Your task to perform on an android device: Open privacy settings Image 0: 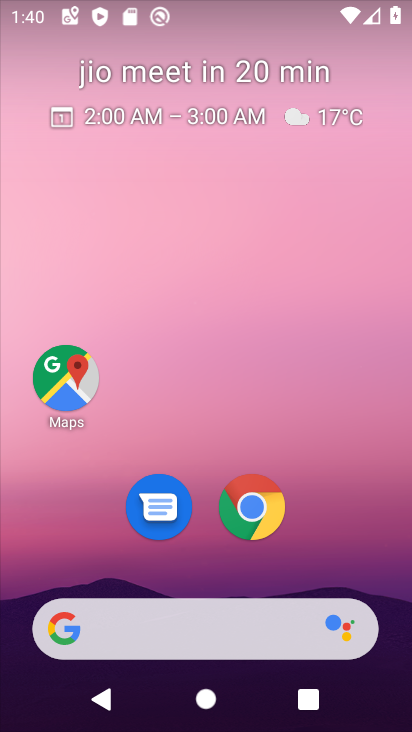
Step 0: drag from (307, 448) to (249, 64)
Your task to perform on an android device: Open privacy settings Image 1: 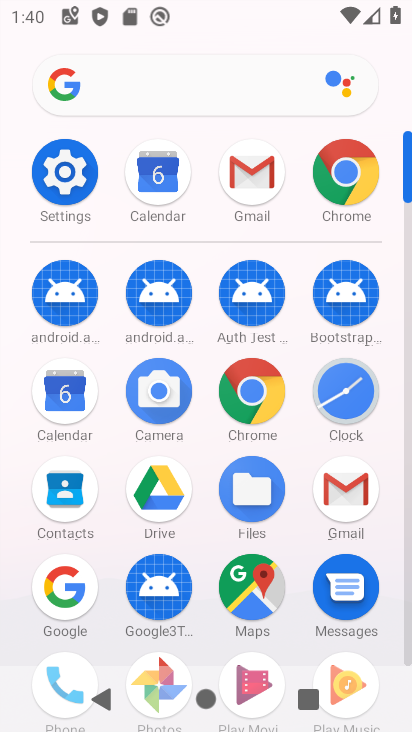
Step 1: drag from (12, 588) to (21, 202)
Your task to perform on an android device: Open privacy settings Image 2: 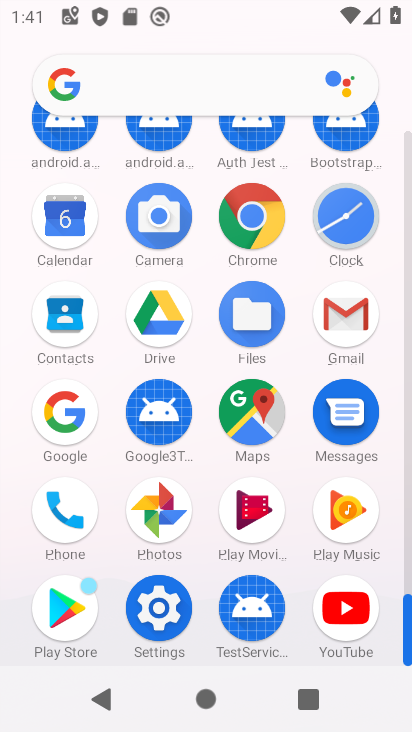
Step 2: click (161, 604)
Your task to perform on an android device: Open privacy settings Image 3: 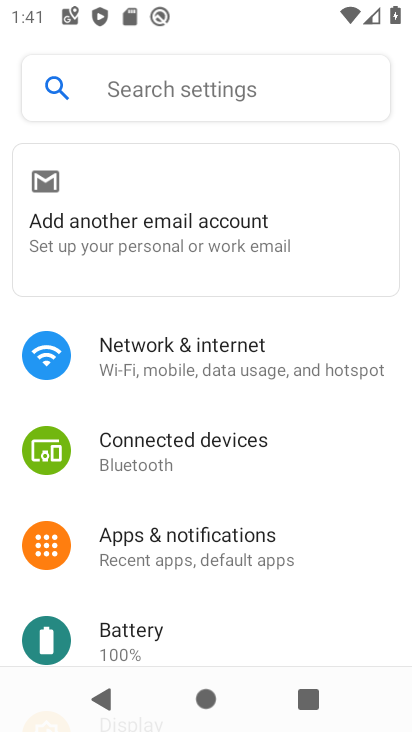
Step 3: drag from (267, 598) to (280, 290)
Your task to perform on an android device: Open privacy settings Image 4: 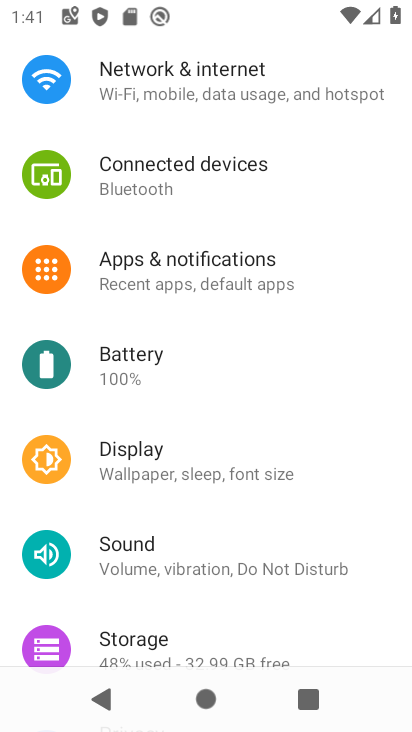
Step 4: drag from (271, 591) to (299, 210)
Your task to perform on an android device: Open privacy settings Image 5: 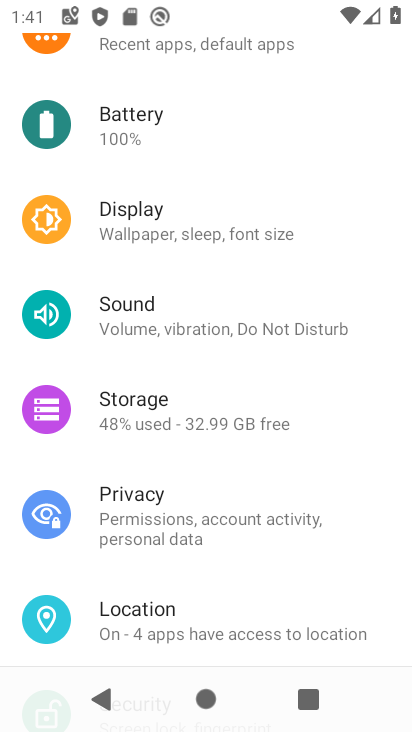
Step 5: drag from (294, 527) to (319, 157)
Your task to perform on an android device: Open privacy settings Image 6: 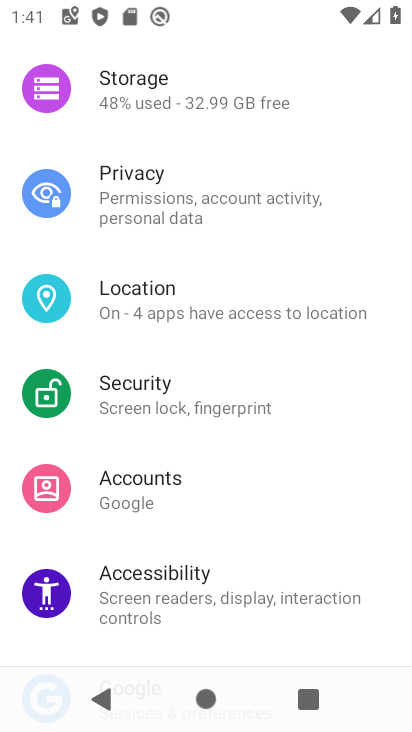
Step 6: drag from (274, 561) to (321, 158)
Your task to perform on an android device: Open privacy settings Image 7: 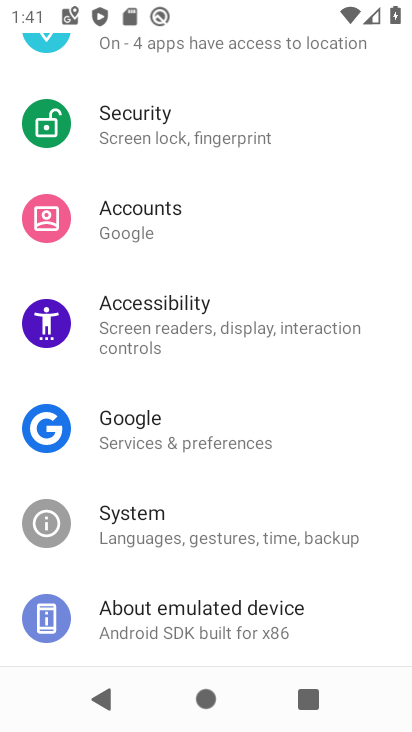
Step 7: drag from (229, 403) to (296, 97)
Your task to perform on an android device: Open privacy settings Image 8: 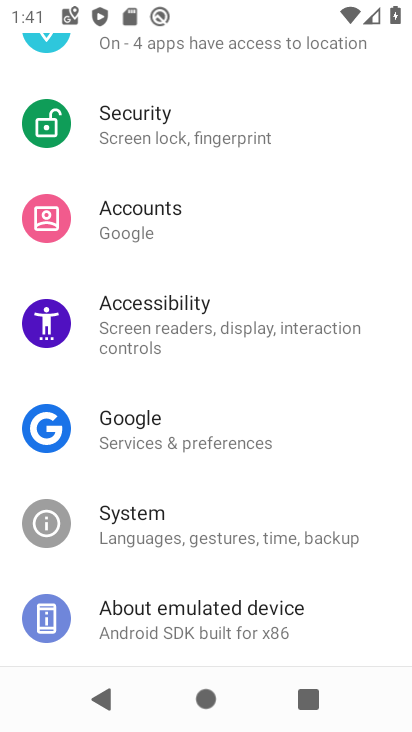
Step 8: drag from (268, 207) to (256, 539)
Your task to perform on an android device: Open privacy settings Image 9: 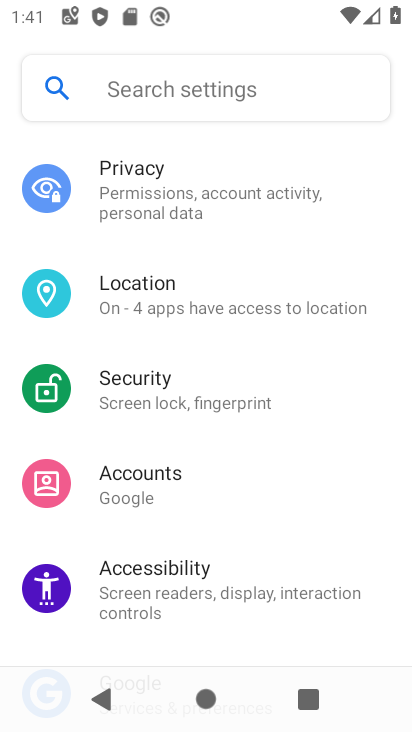
Step 9: drag from (265, 215) to (272, 572)
Your task to perform on an android device: Open privacy settings Image 10: 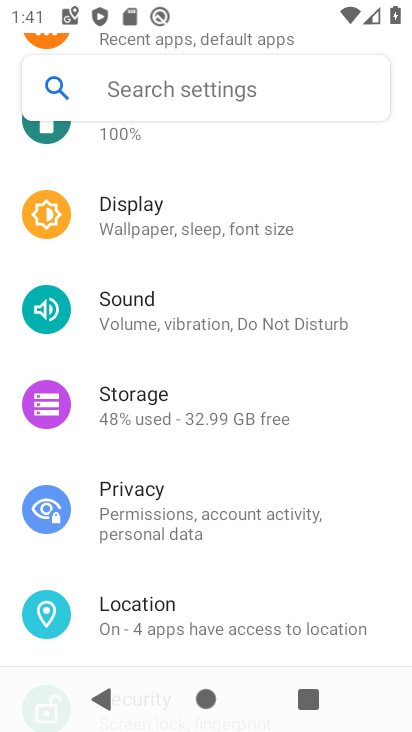
Step 10: drag from (284, 251) to (275, 566)
Your task to perform on an android device: Open privacy settings Image 11: 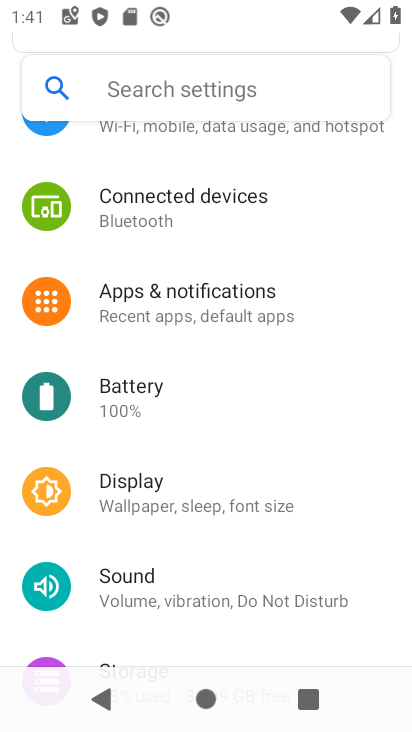
Step 11: drag from (280, 305) to (283, 567)
Your task to perform on an android device: Open privacy settings Image 12: 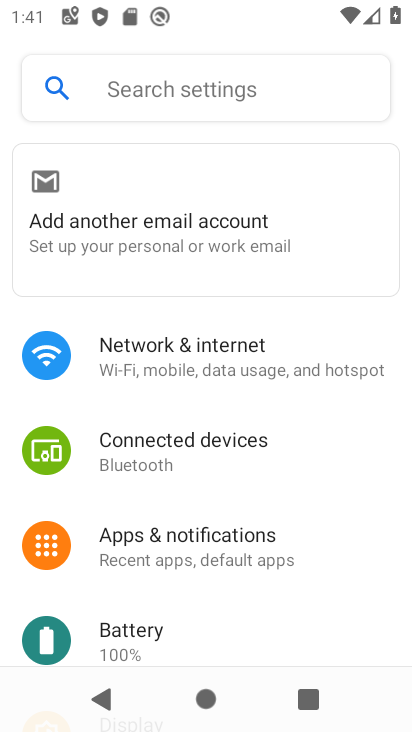
Step 12: drag from (243, 555) to (244, 228)
Your task to perform on an android device: Open privacy settings Image 13: 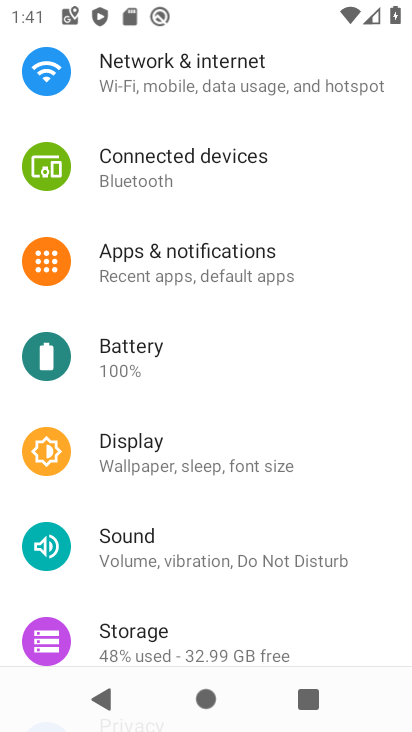
Step 13: drag from (186, 615) to (220, 285)
Your task to perform on an android device: Open privacy settings Image 14: 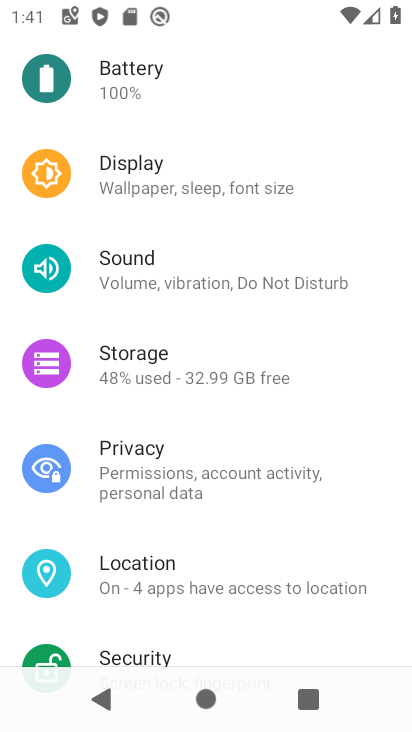
Step 14: click (132, 460)
Your task to perform on an android device: Open privacy settings Image 15: 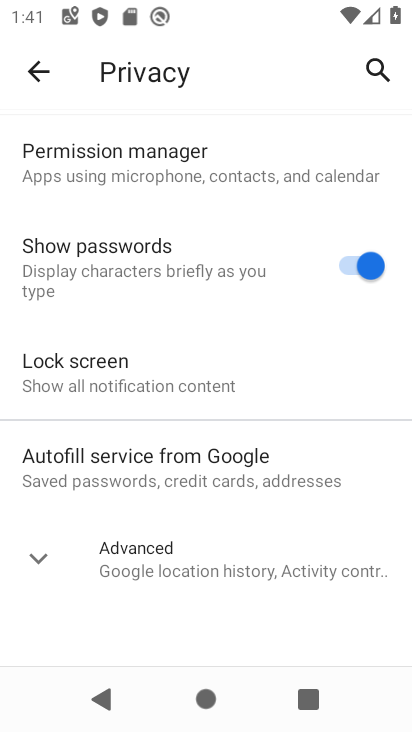
Step 15: click (69, 553)
Your task to perform on an android device: Open privacy settings Image 16: 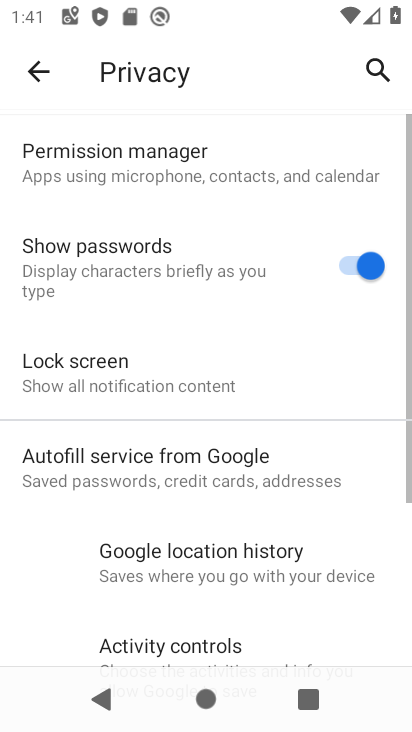
Step 16: task complete